Your task to perform on an android device: check storage Image 0: 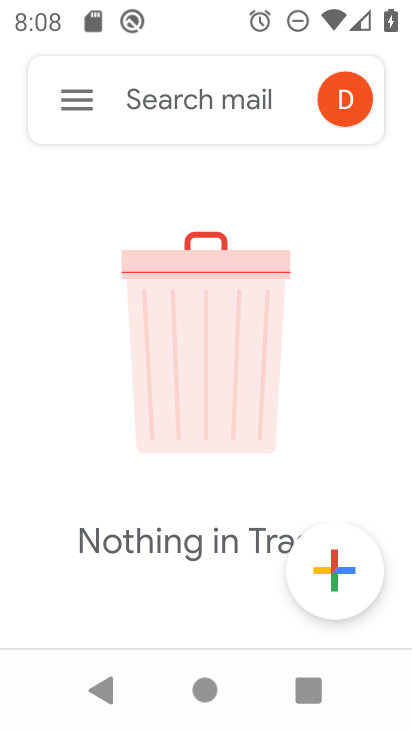
Step 0: press home button
Your task to perform on an android device: check storage Image 1: 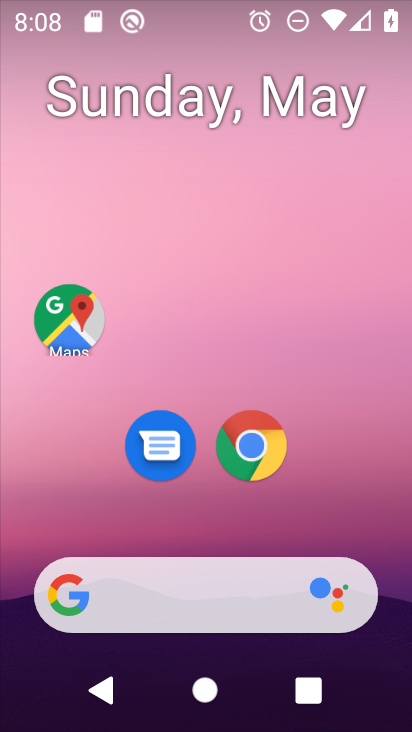
Step 1: drag from (221, 622) to (292, 102)
Your task to perform on an android device: check storage Image 2: 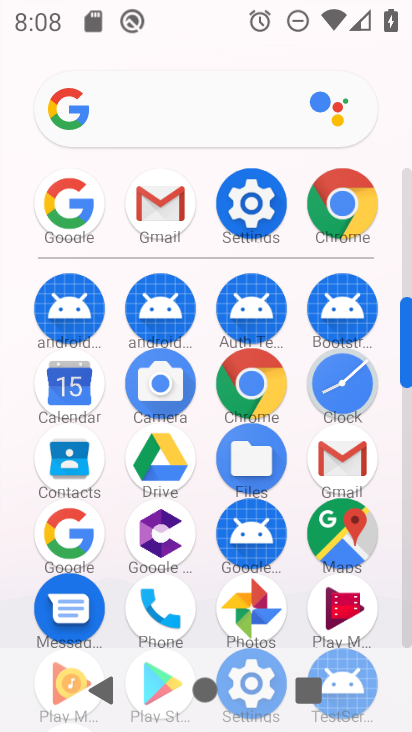
Step 2: click (265, 209)
Your task to perform on an android device: check storage Image 3: 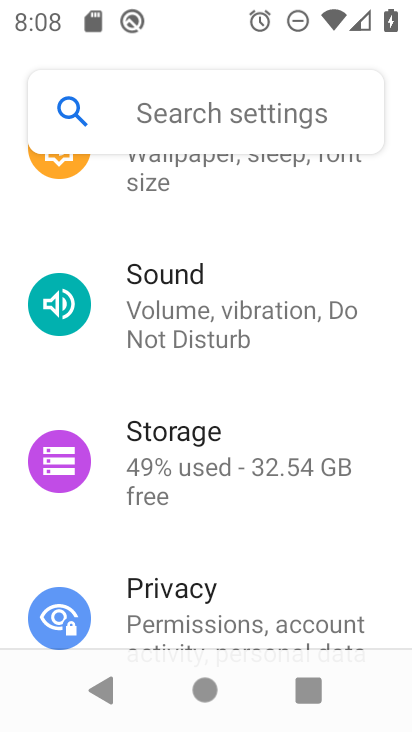
Step 3: click (220, 451)
Your task to perform on an android device: check storage Image 4: 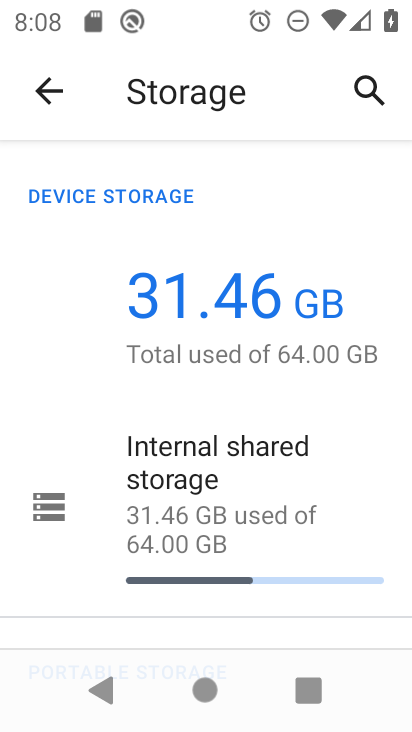
Step 4: drag from (240, 577) to (264, 270)
Your task to perform on an android device: check storage Image 5: 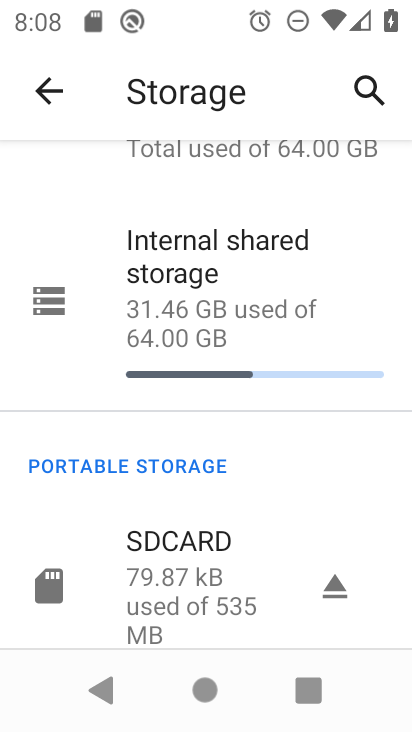
Step 5: click (264, 270)
Your task to perform on an android device: check storage Image 6: 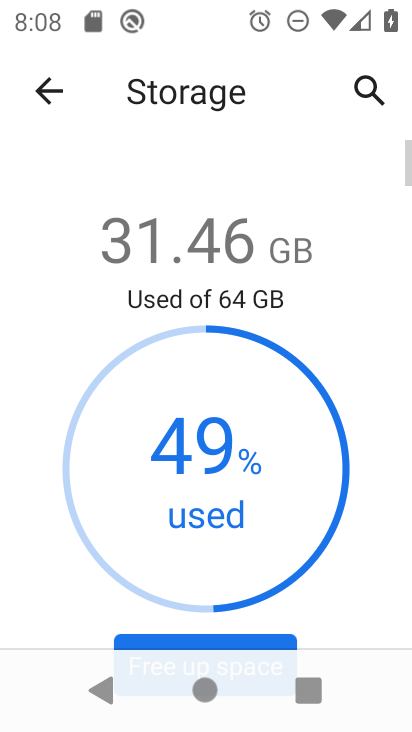
Step 6: task complete